Your task to perform on an android device: Search for sushi restaurants on Maps Image 0: 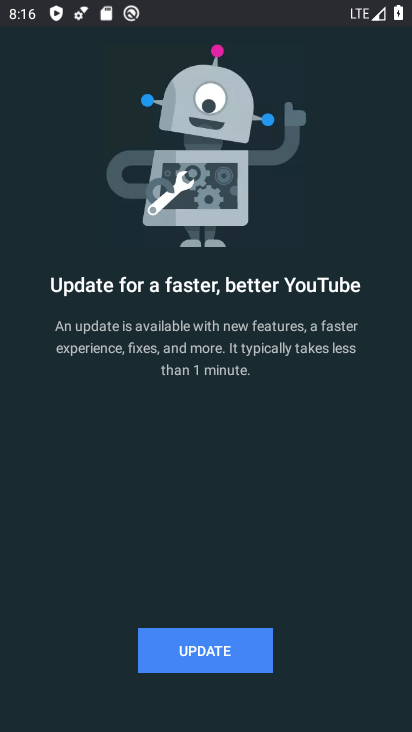
Step 0: press back button
Your task to perform on an android device: Search for sushi restaurants on Maps Image 1: 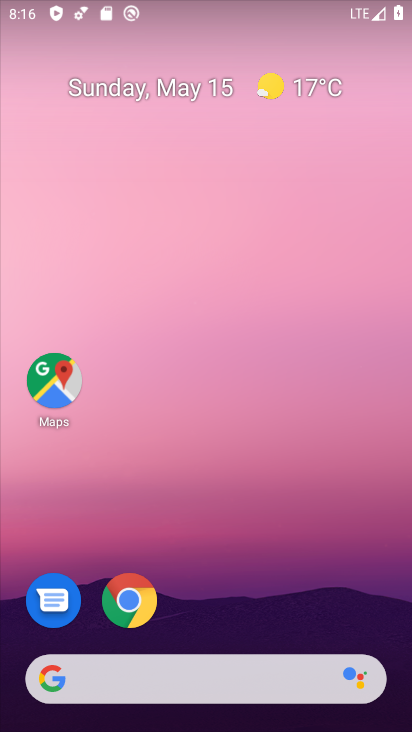
Step 1: click (52, 382)
Your task to perform on an android device: Search for sushi restaurants on Maps Image 2: 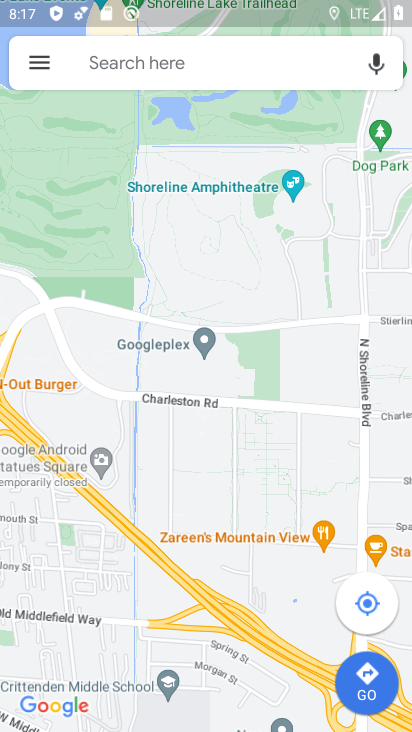
Step 2: click (189, 64)
Your task to perform on an android device: Search for sushi restaurants on Maps Image 3: 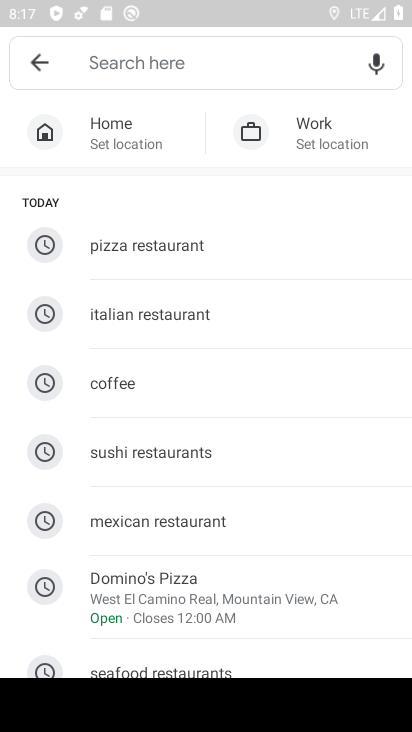
Step 3: type "sushi restaurants"
Your task to perform on an android device: Search for sushi restaurants on Maps Image 4: 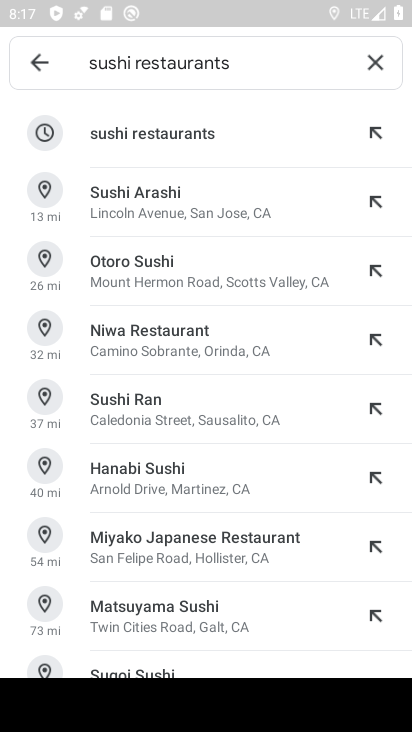
Step 4: click (178, 140)
Your task to perform on an android device: Search for sushi restaurants on Maps Image 5: 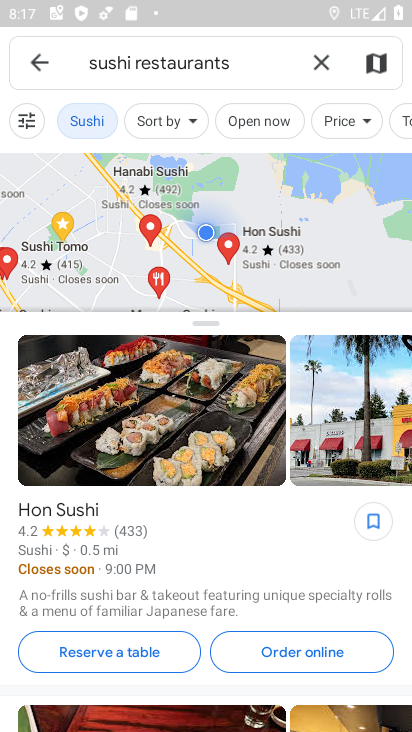
Step 5: task complete